Your task to perform on an android device: See recent photos Image 0: 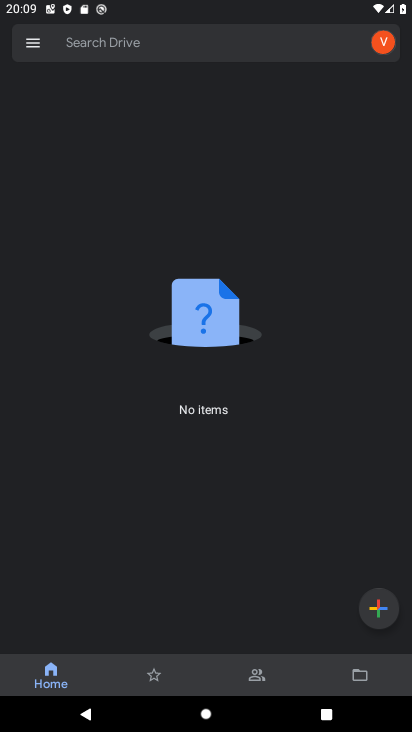
Step 0: press home button
Your task to perform on an android device: See recent photos Image 1: 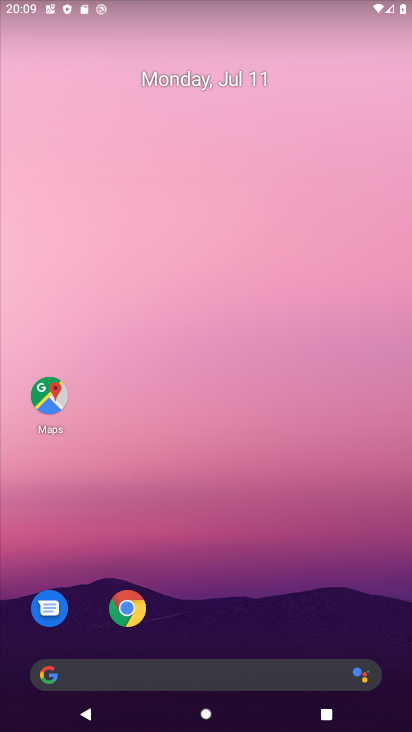
Step 1: drag from (273, 601) to (263, 42)
Your task to perform on an android device: See recent photos Image 2: 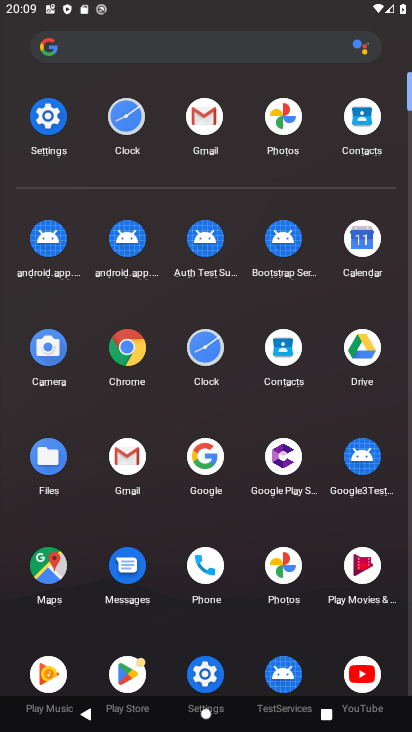
Step 2: click (276, 568)
Your task to perform on an android device: See recent photos Image 3: 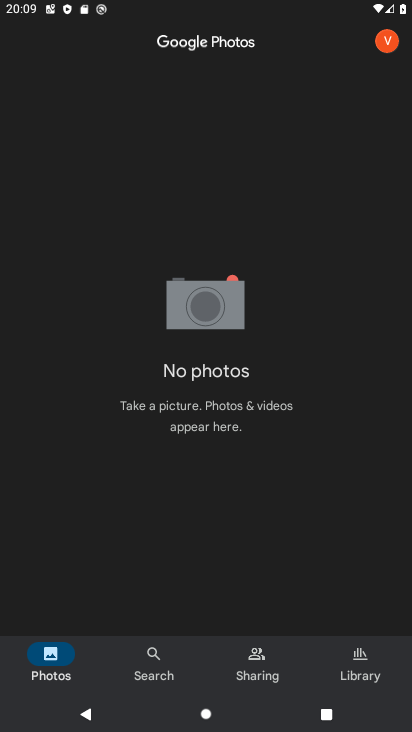
Step 3: click (364, 676)
Your task to perform on an android device: See recent photos Image 4: 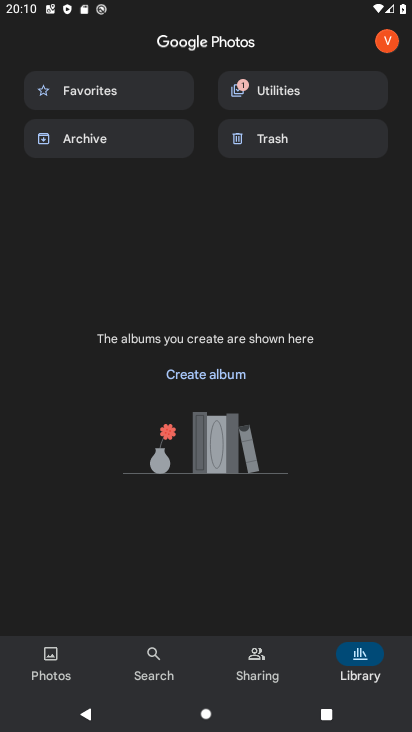
Step 4: click (100, 137)
Your task to perform on an android device: See recent photos Image 5: 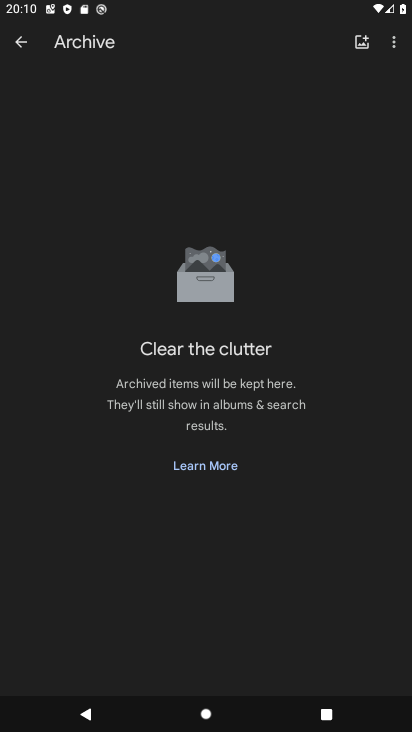
Step 5: task complete